Your task to perform on an android device: all mails in gmail Image 0: 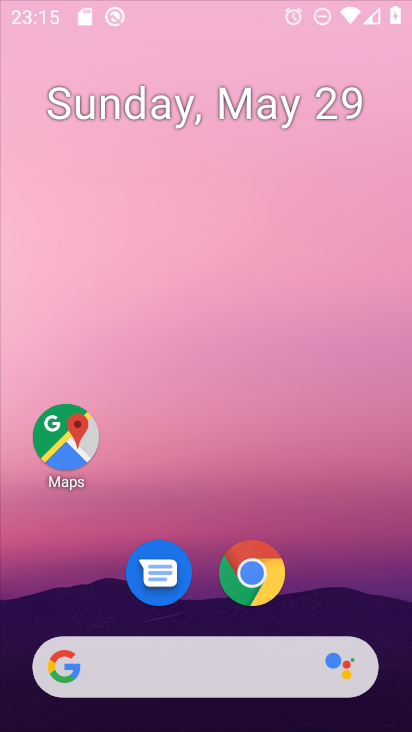
Step 0: drag from (234, 246) to (243, 1)
Your task to perform on an android device: all mails in gmail Image 1: 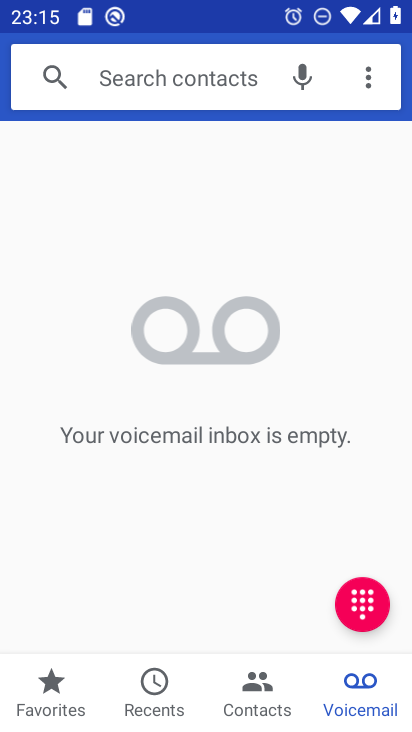
Step 1: press home button
Your task to perform on an android device: all mails in gmail Image 2: 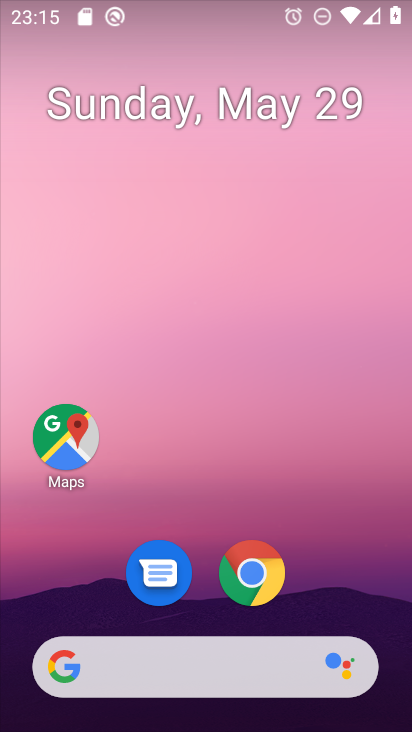
Step 2: drag from (207, 547) to (240, 43)
Your task to perform on an android device: all mails in gmail Image 3: 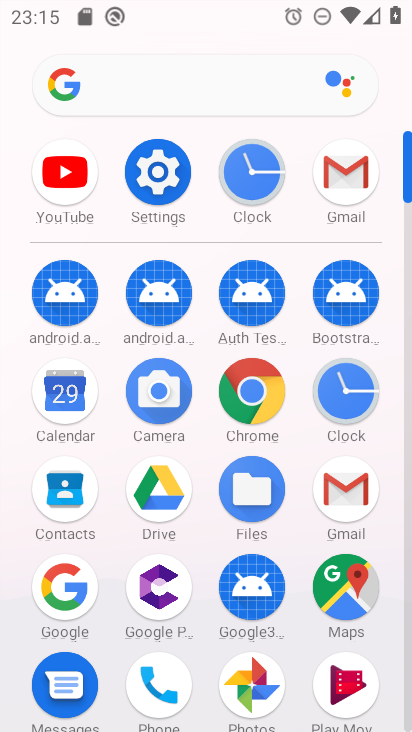
Step 3: click (335, 173)
Your task to perform on an android device: all mails in gmail Image 4: 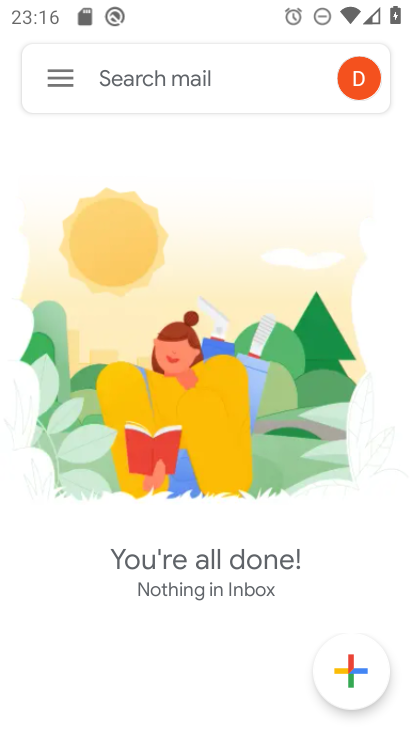
Step 4: click (67, 84)
Your task to perform on an android device: all mails in gmail Image 5: 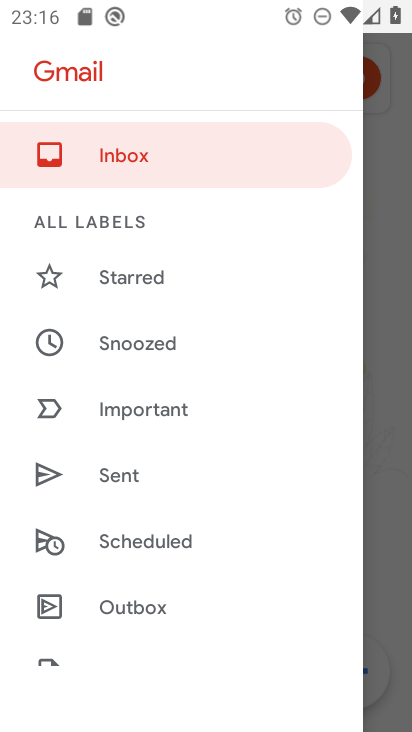
Step 5: drag from (170, 503) to (237, 127)
Your task to perform on an android device: all mails in gmail Image 6: 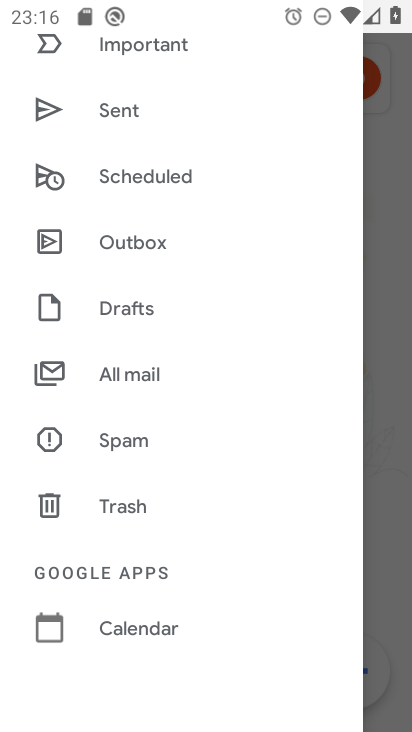
Step 6: click (182, 365)
Your task to perform on an android device: all mails in gmail Image 7: 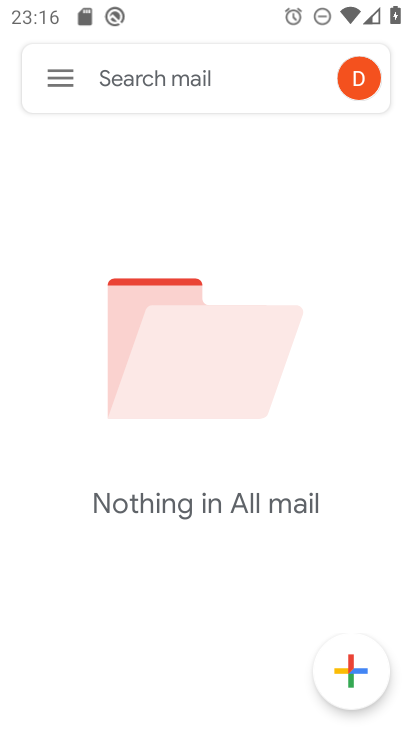
Step 7: task complete